Your task to perform on an android device: turn notification dots on Image 0: 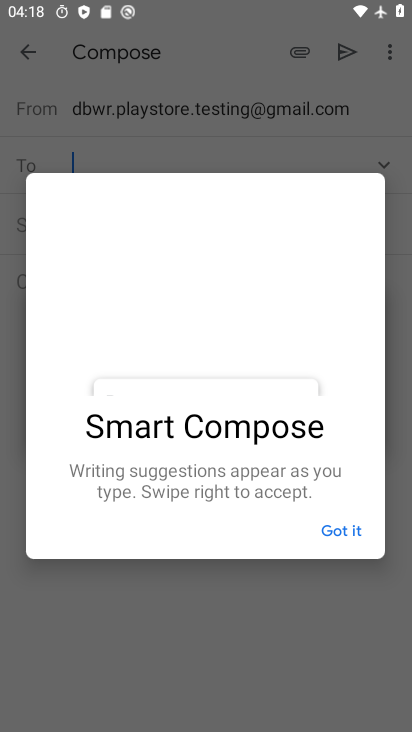
Step 0: press home button
Your task to perform on an android device: turn notification dots on Image 1: 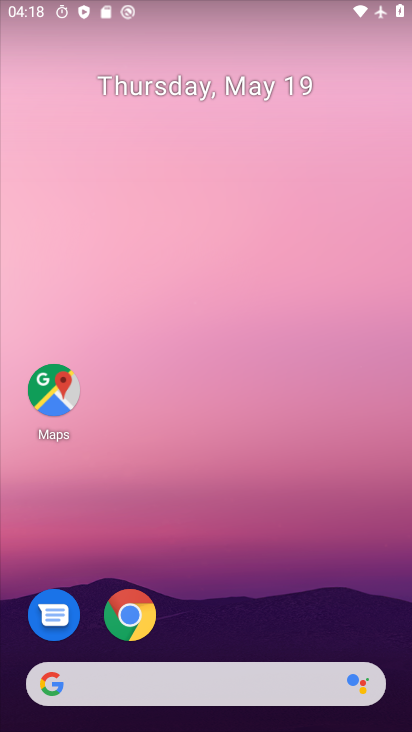
Step 1: drag from (247, 626) to (248, 52)
Your task to perform on an android device: turn notification dots on Image 2: 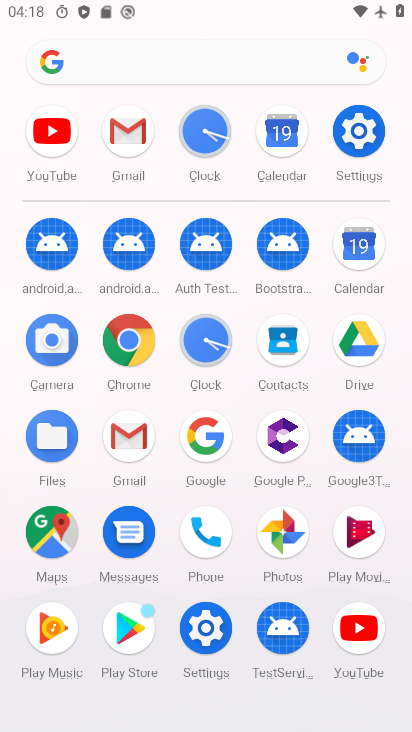
Step 2: click (357, 132)
Your task to perform on an android device: turn notification dots on Image 3: 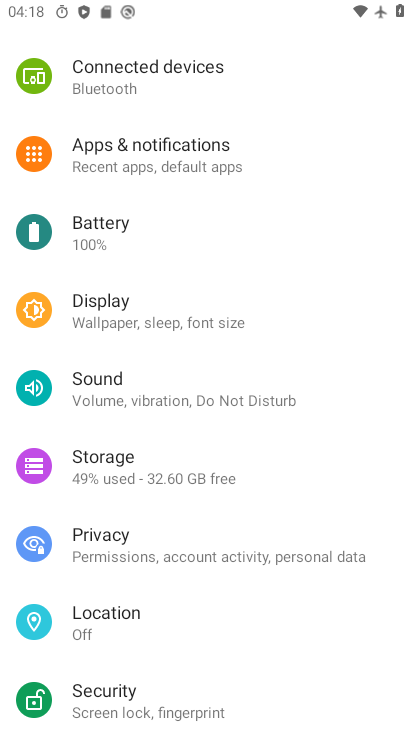
Step 3: click (173, 150)
Your task to perform on an android device: turn notification dots on Image 4: 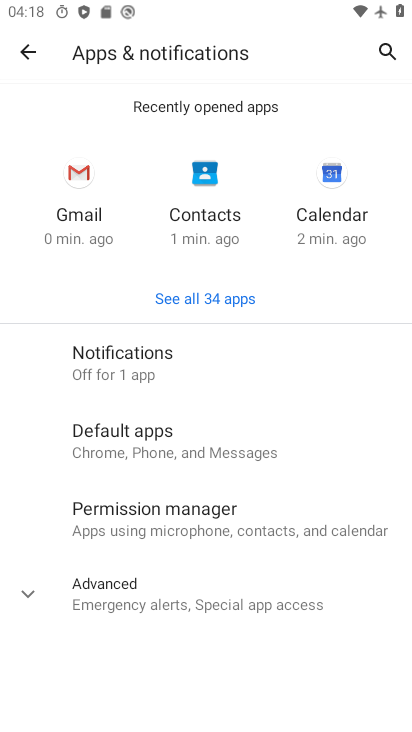
Step 4: drag from (241, 453) to (252, 142)
Your task to perform on an android device: turn notification dots on Image 5: 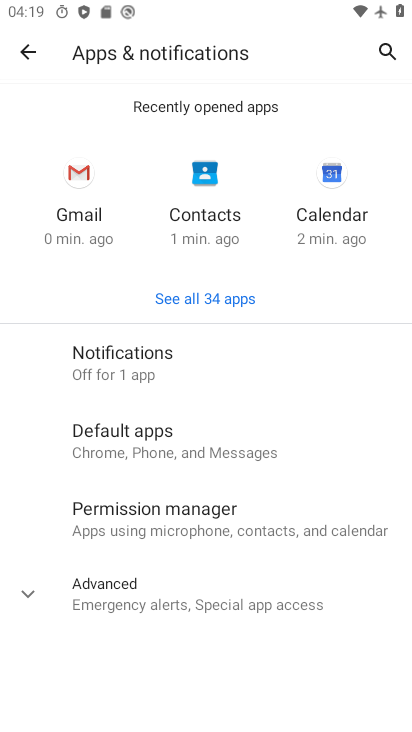
Step 5: click (103, 370)
Your task to perform on an android device: turn notification dots on Image 6: 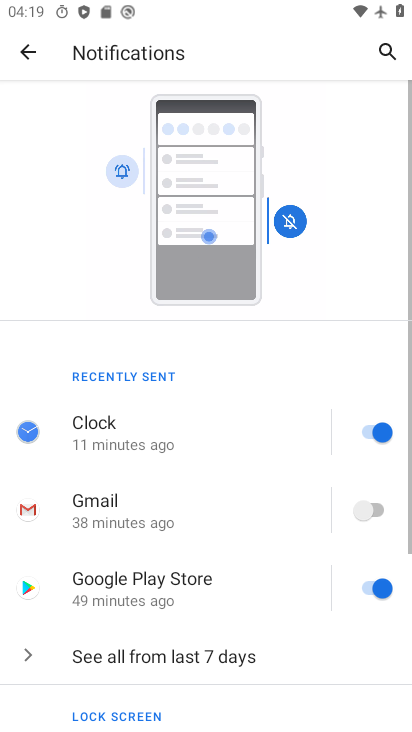
Step 6: drag from (82, 622) to (94, 185)
Your task to perform on an android device: turn notification dots on Image 7: 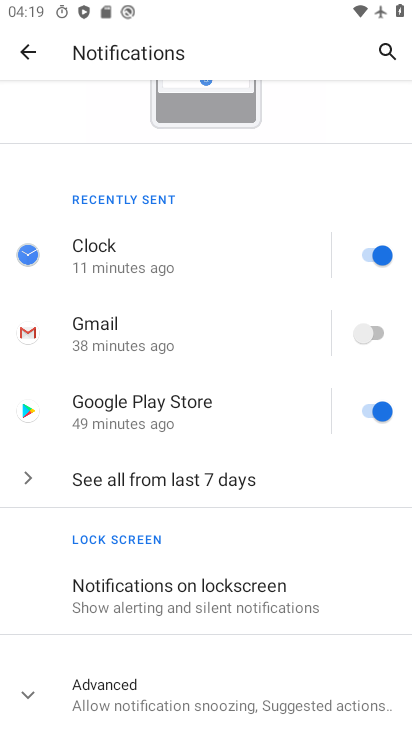
Step 7: click (31, 702)
Your task to perform on an android device: turn notification dots on Image 8: 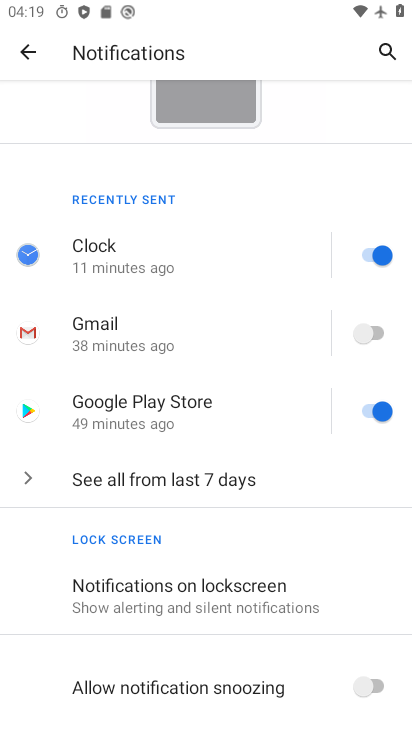
Step 8: task complete